Your task to perform on an android device: What's the weather going to be this weekend? Image 0: 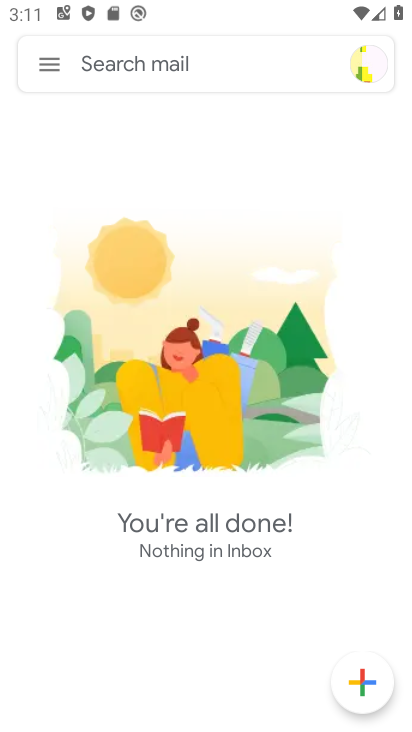
Step 0: press home button
Your task to perform on an android device: What's the weather going to be this weekend? Image 1: 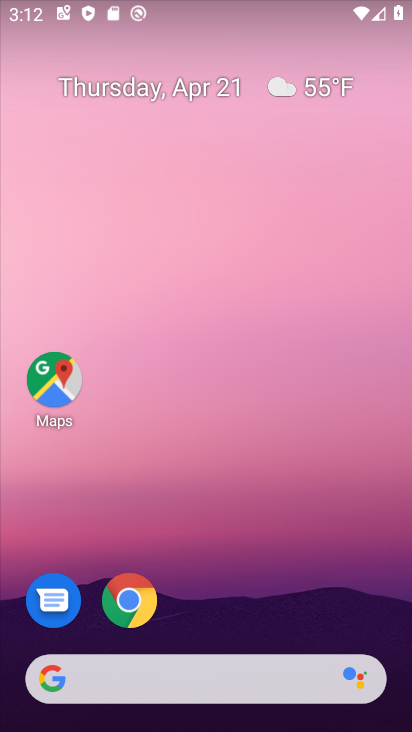
Step 1: click (317, 84)
Your task to perform on an android device: What's the weather going to be this weekend? Image 2: 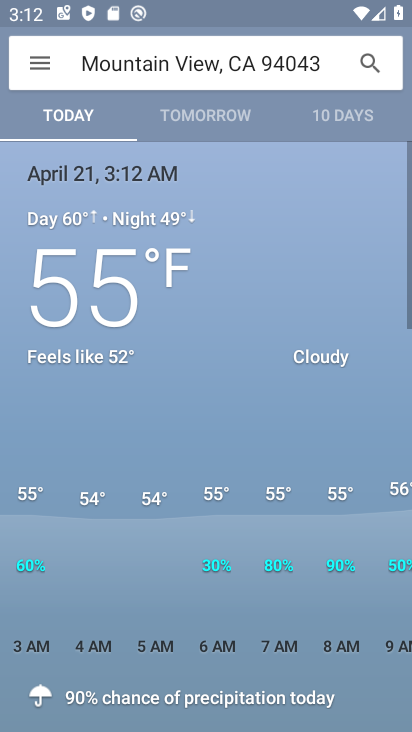
Step 2: click (338, 118)
Your task to perform on an android device: What's the weather going to be this weekend? Image 3: 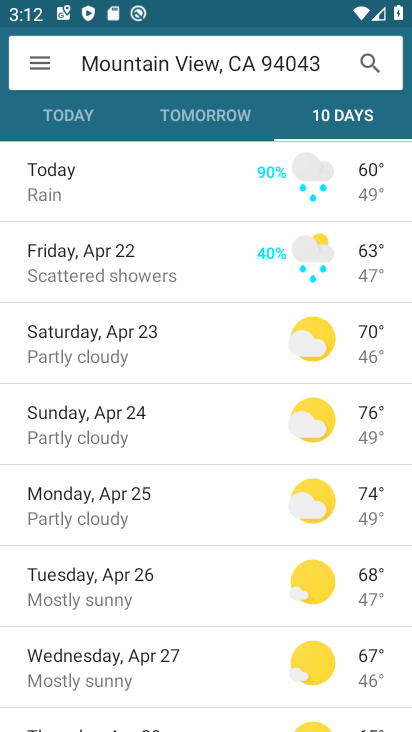
Step 3: click (125, 346)
Your task to perform on an android device: What's the weather going to be this weekend? Image 4: 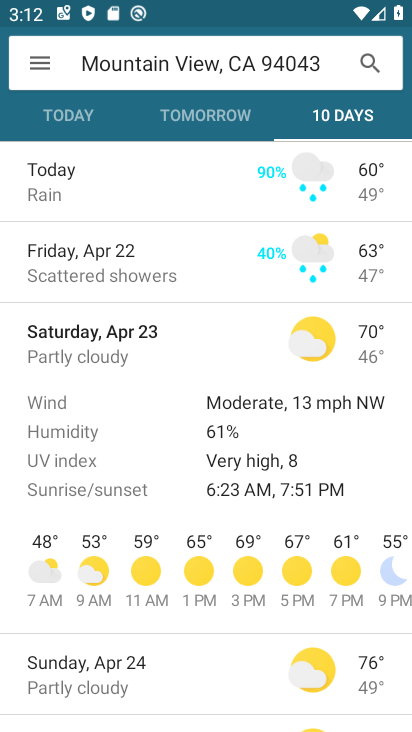
Step 4: task complete